Your task to perform on an android device: toggle airplane mode Image 0: 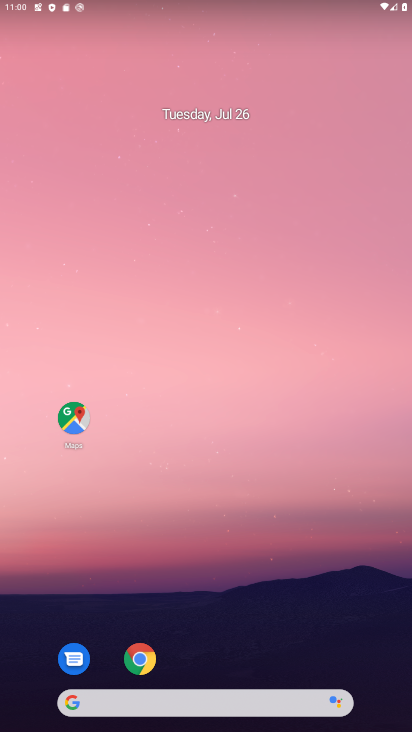
Step 0: drag from (224, 695) to (240, 212)
Your task to perform on an android device: toggle airplane mode Image 1: 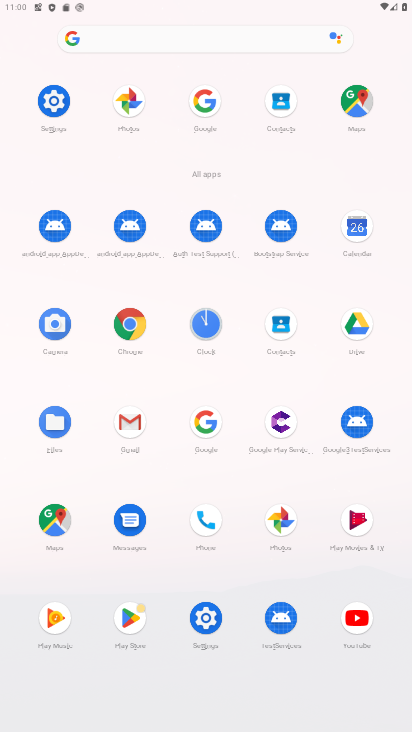
Step 1: click (206, 618)
Your task to perform on an android device: toggle airplane mode Image 2: 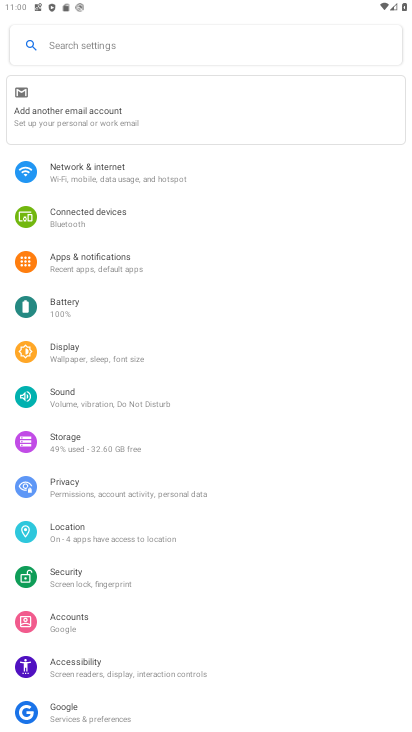
Step 2: click (85, 173)
Your task to perform on an android device: toggle airplane mode Image 3: 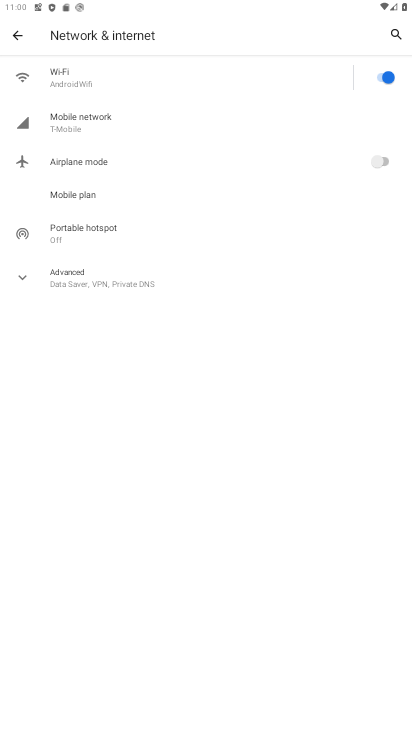
Step 3: click (377, 163)
Your task to perform on an android device: toggle airplane mode Image 4: 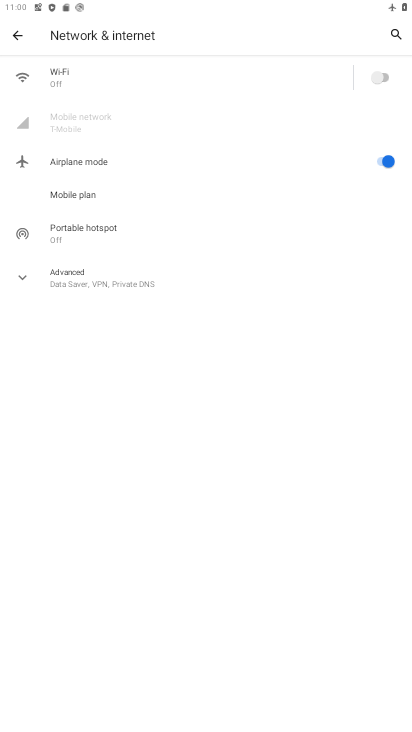
Step 4: task complete